Your task to perform on an android device: allow cookies in the chrome app Image 0: 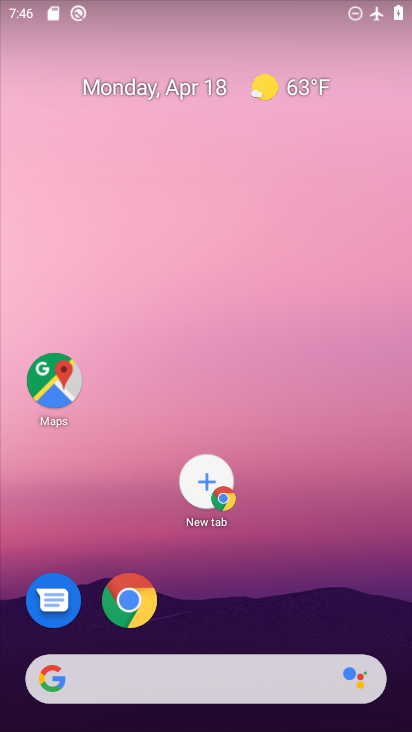
Step 0: click (124, 605)
Your task to perform on an android device: allow cookies in the chrome app Image 1: 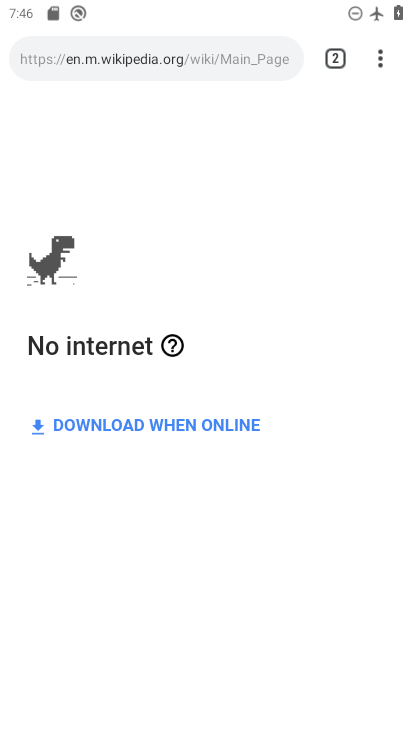
Step 1: click (377, 59)
Your task to perform on an android device: allow cookies in the chrome app Image 2: 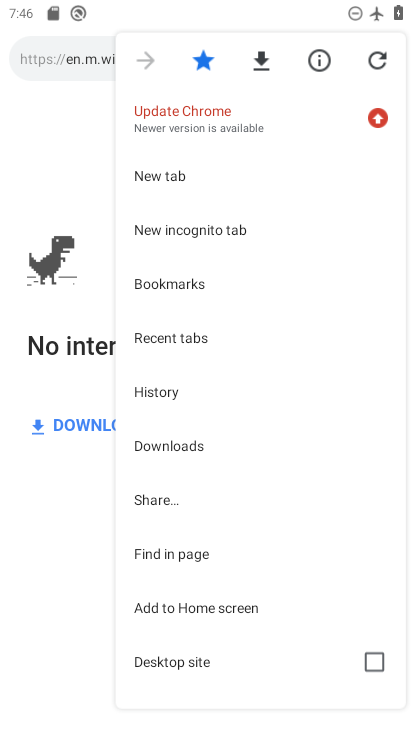
Step 2: drag from (239, 527) to (260, 2)
Your task to perform on an android device: allow cookies in the chrome app Image 3: 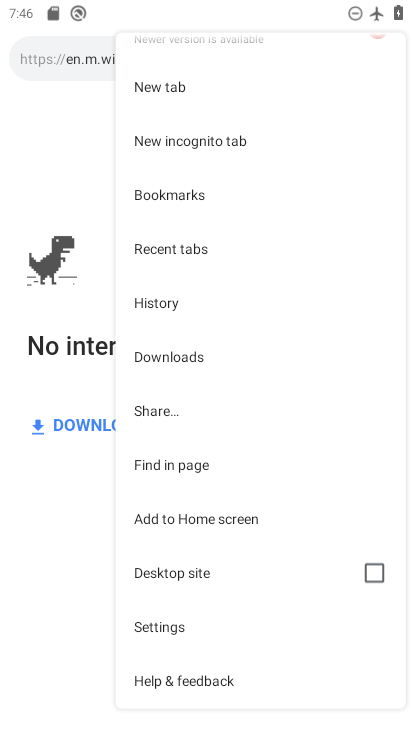
Step 3: click (170, 622)
Your task to perform on an android device: allow cookies in the chrome app Image 4: 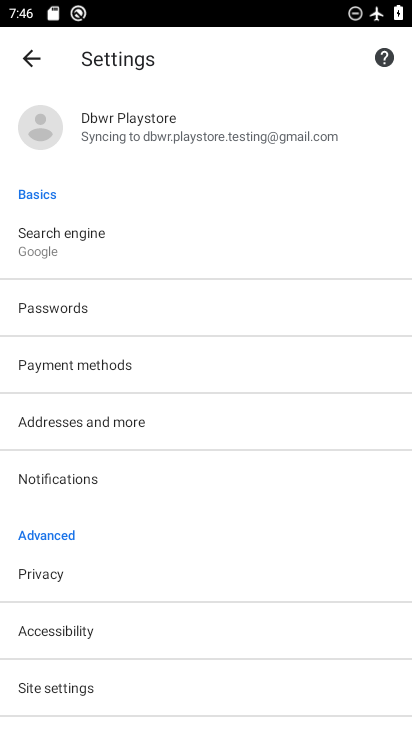
Step 4: drag from (223, 582) to (159, 114)
Your task to perform on an android device: allow cookies in the chrome app Image 5: 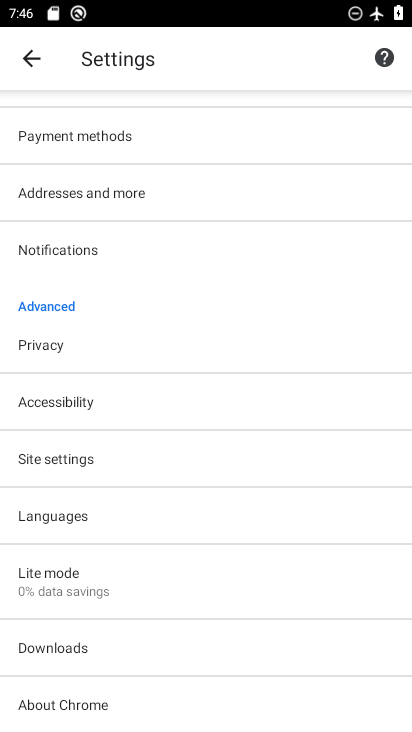
Step 5: click (61, 461)
Your task to perform on an android device: allow cookies in the chrome app Image 6: 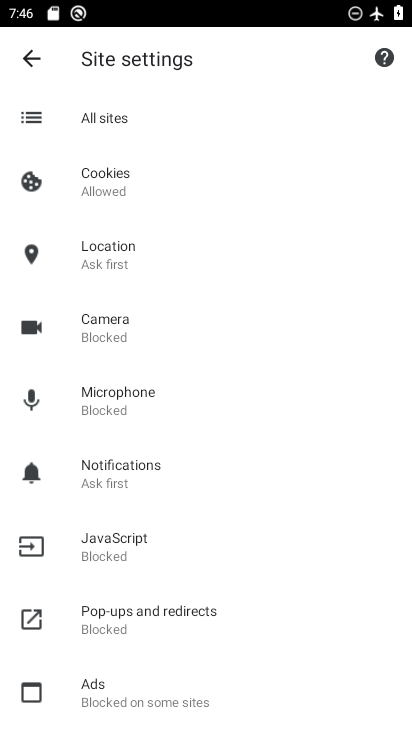
Step 6: click (103, 182)
Your task to perform on an android device: allow cookies in the chrome app Image 7: 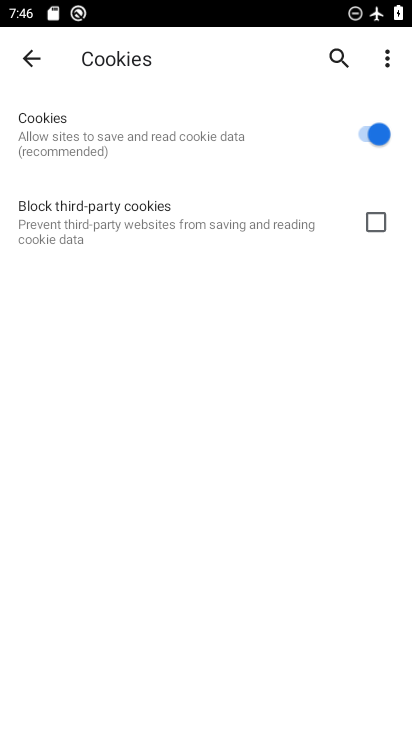
Step 7: task complete